Your task to perform on an android device: toggle location history Image 0: 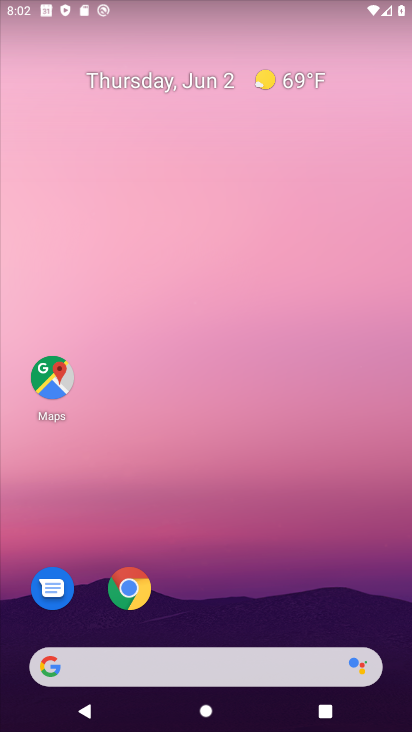
Step 0: drag from (211, 242) to (206, 49)
Your task to perform on an android device: toggle location history Image 1: 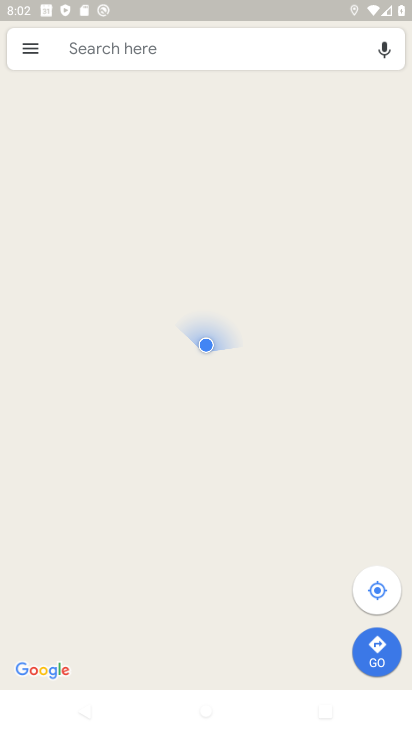
Step 1: press home button
Your task to perform on an android device: toggle location history Image 2: 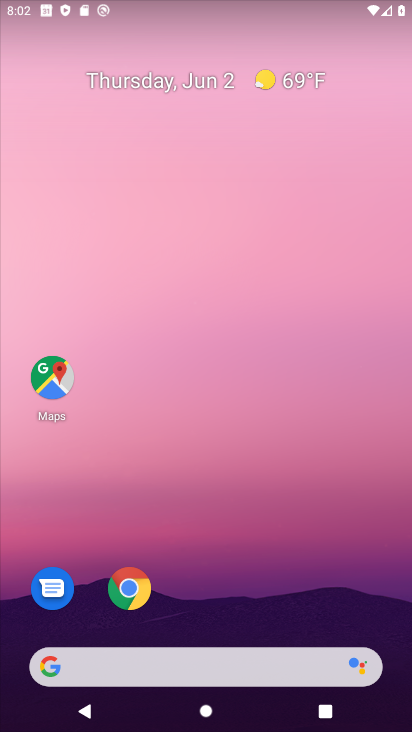
Step 2: drag from (235, 728) to (243, 1)
Your task to perform on an android device: toggle location history Image 3: 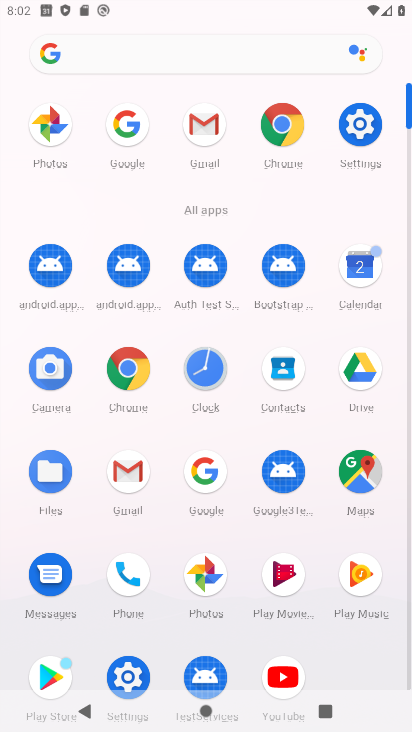
Step 3: click (364, 192)
Your task to perform on an android device: toggle location history Image 4: 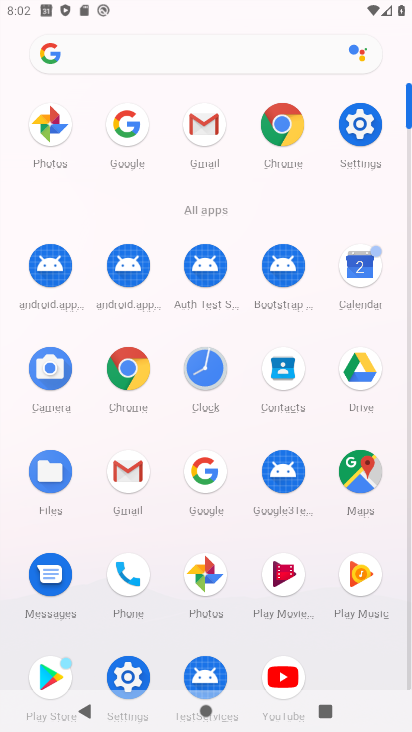
Step 4: click (364, 118)
Your task to perform on an android device: toggle location history Image 5: 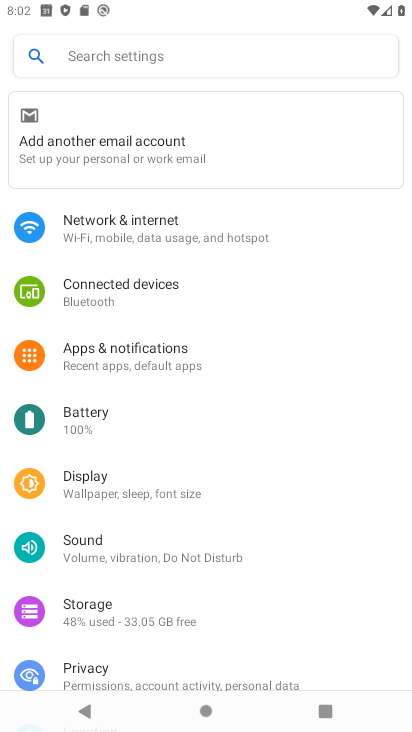
Step 5: drag from (195, 633) to (189, 315)
Your task to perform on an android device: toggle location history Image 6: 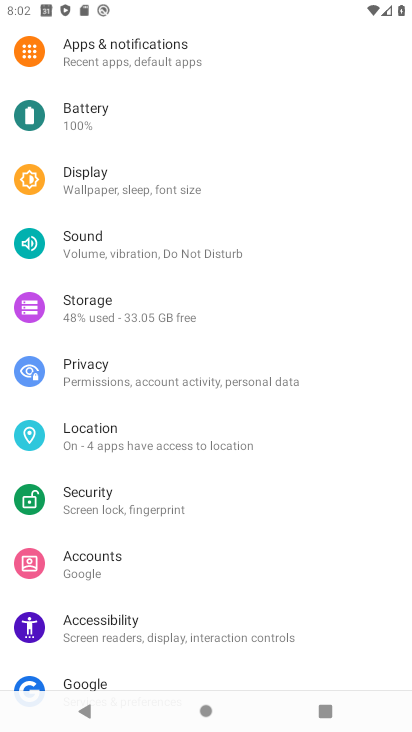
Step 6: click (93, 435)
Your task to perform on an android device: toggle location history Image 7: 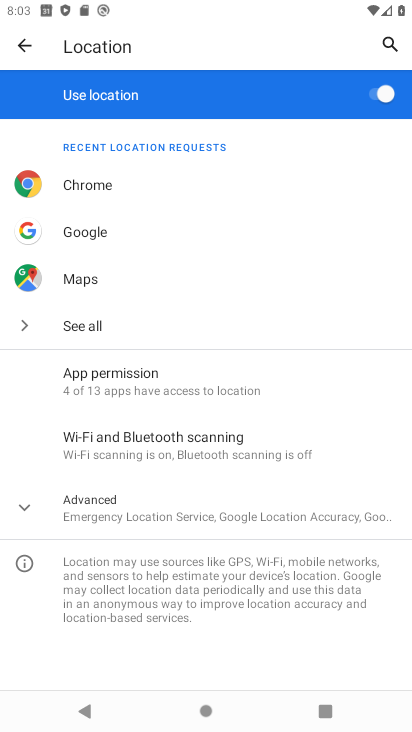
Step 7: click (120, 506)
Your task to perform on an android device: toggle location history Image 8: 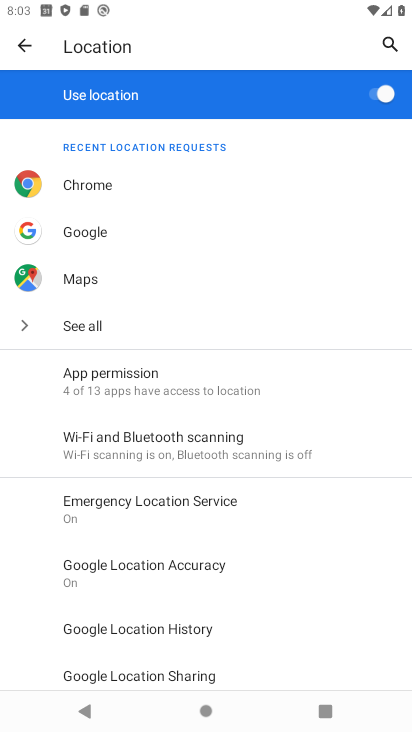
Step 8: click (129, 629)
Your task to perform on an android device: toggle location history Image 9: 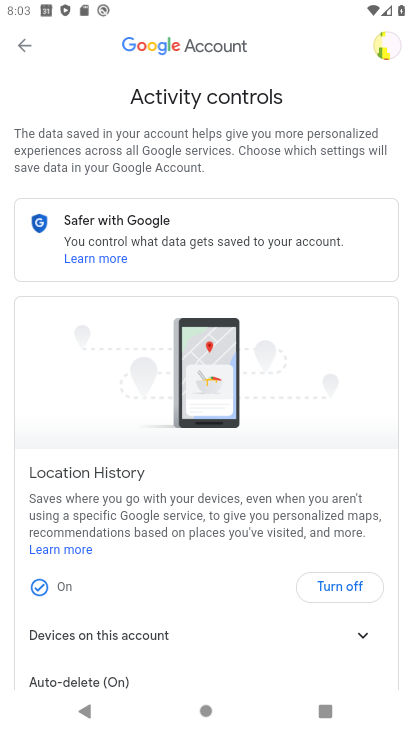
Step 9: click (337, 580)
Your task to perform on an android device: toggle location history Image 10: 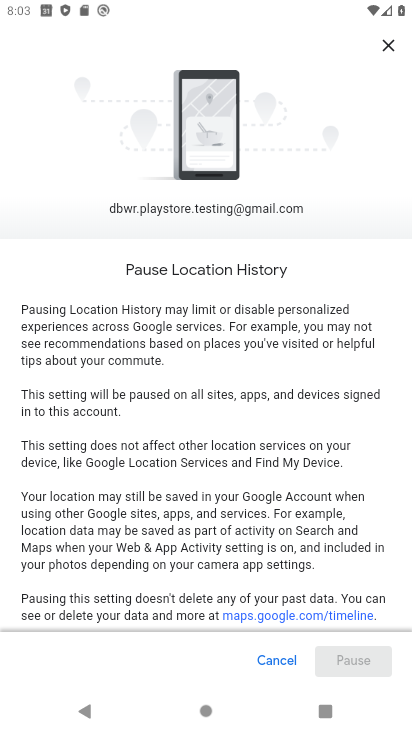
Step 10: drag from (366, 572) to (330, 210)
Your task to perform on an android device: toggle location history Image 11: 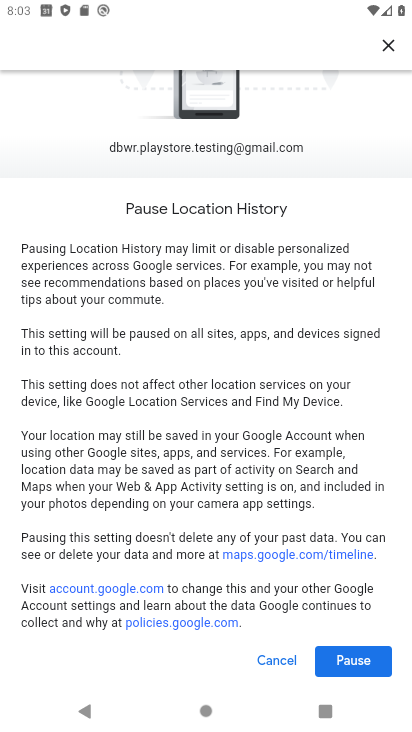
Step 11: click (338, 660)
Your task to perform on an android device: toggle location history Image 12: 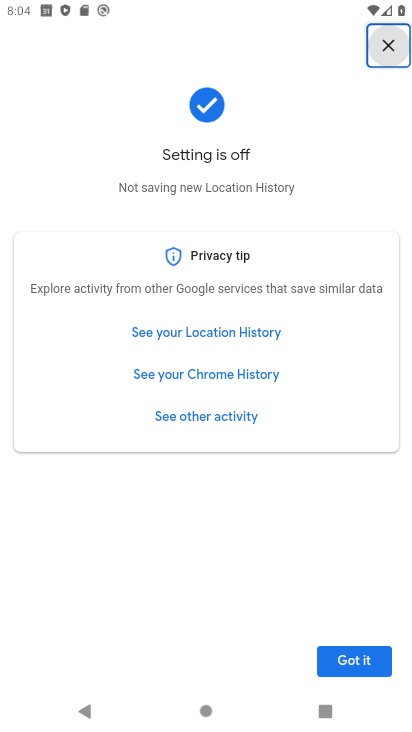
Step 12: click (360, 656)
Your task to perform on an android device: toggle location history Image 13: 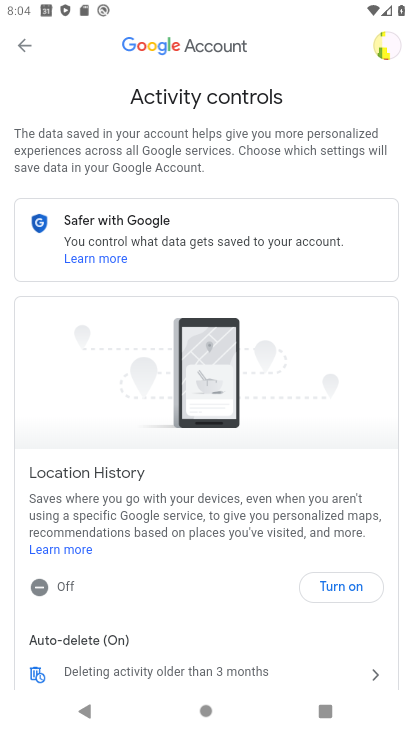
Step 13: task complete